Your task to perform on an android device: What is the recent news? Image 0: 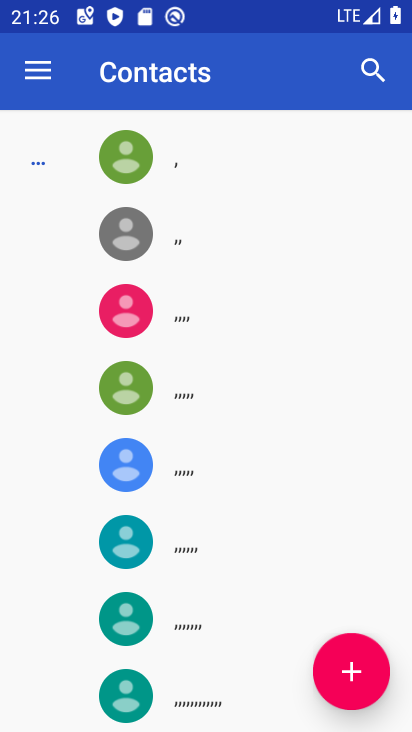
Step 0: press home button
Your task to perform on an android device: What is the recent news? Image 1: 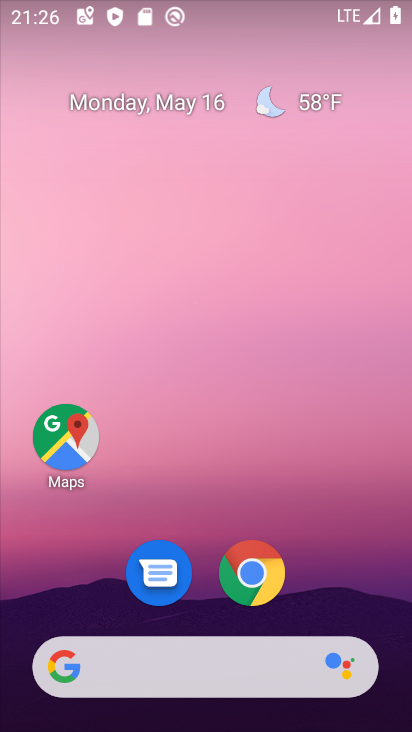
Step 1: task complete